Your task to perform on an android device: change timer sound Image 0: 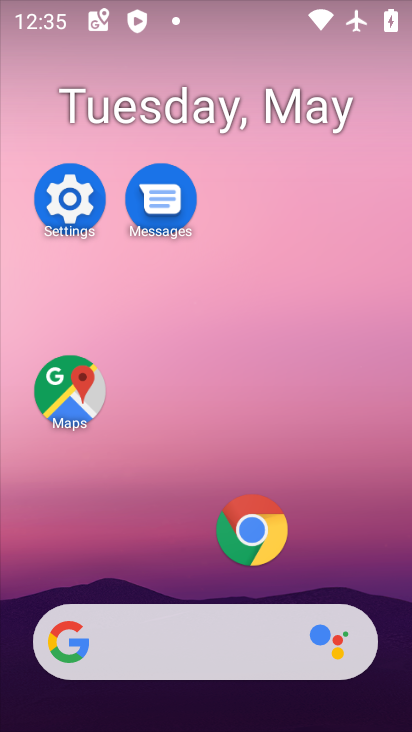
Step 0: drag from (134, 568) to (283, 153)
Your task to perform on an android device: change timer sound Image 1: 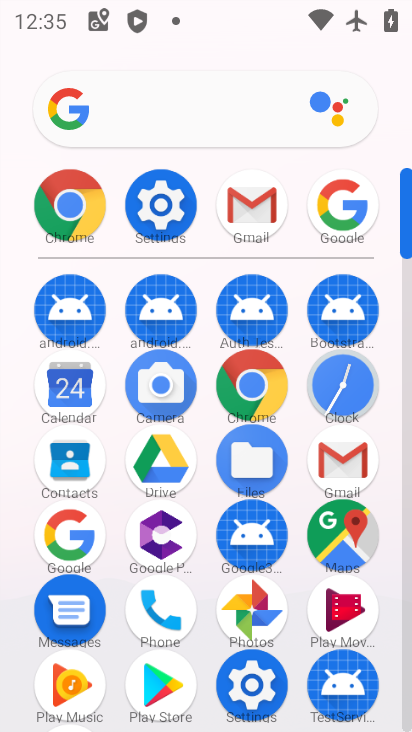
Step 1: click (349, 394)
Your task to perform on an android device: change timer sound Image 2: 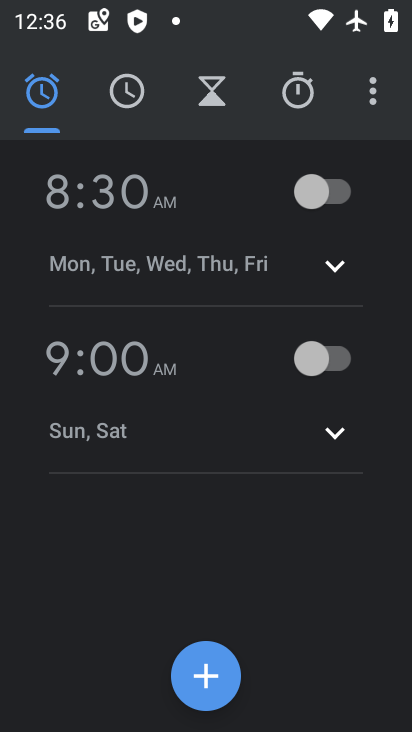
Step 2: click (365, 107)
Your task to perform on an android device: change timer sound Image 3: 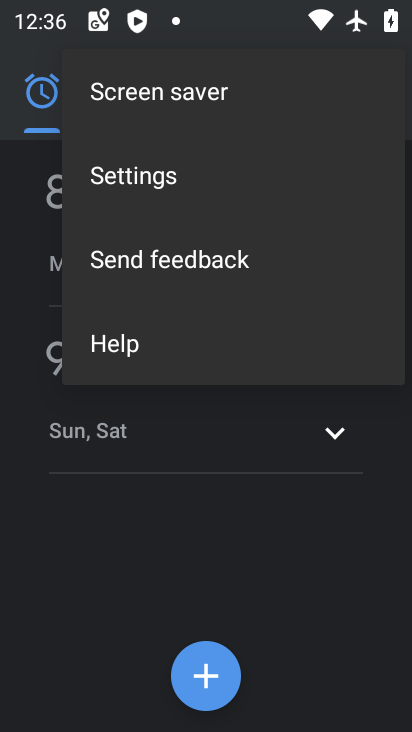
Step 3: click (180, 189)
Your task to perform on an android device: change timer sound Image 4: 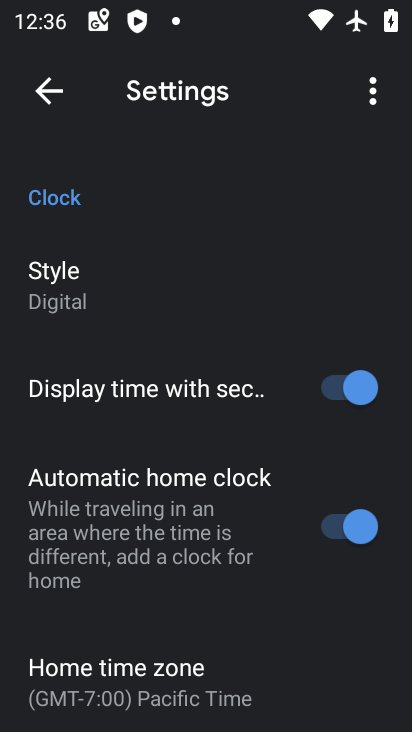
Step 4: drag from (150, 623) to (212, 328)
Your task to perform on an android device: change timer sound Image 5: 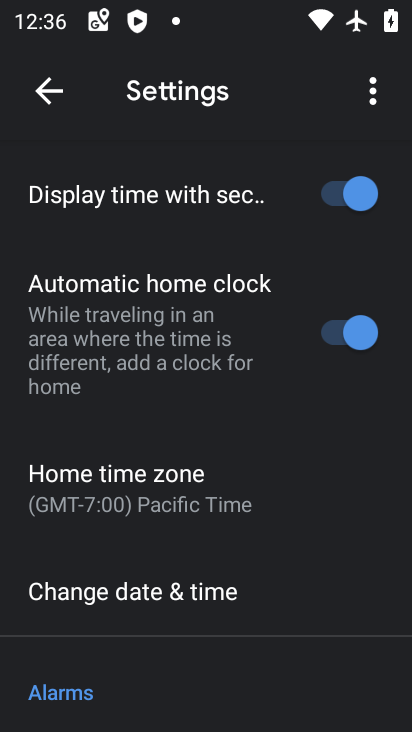
Step 5: click (128, 695)
Your task to perform on an android device: change timer sound Image 6: 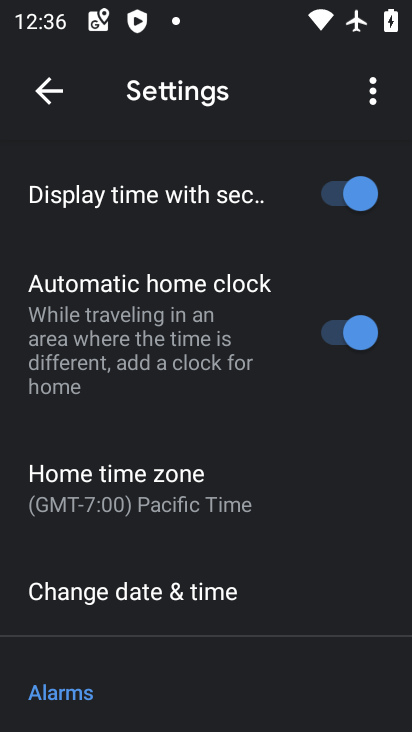
Step 6: drag from (117, 473) to (129, 60)
Your task to perform on an android device: change timer sound Image 7: 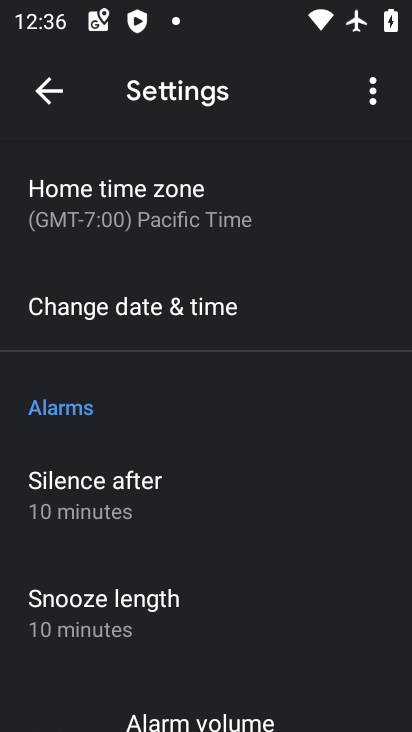
Step 7: drag from (171, 604) to (196, 112)
Your task to perform on an android device: change timer sound Image 8: 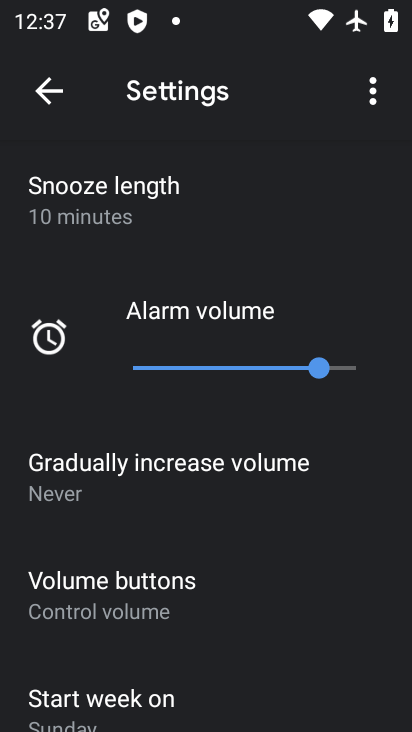
Step 8: drag from (163, 610) to (206, 230)
Your task to perform on an android device: change timer sound Image 9: 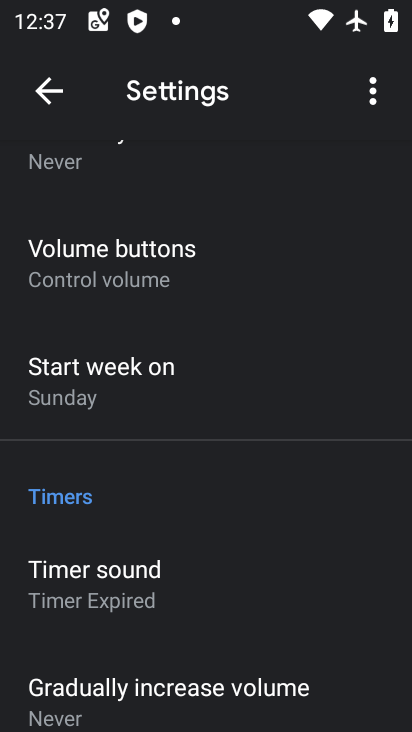
Step 9: click (145, 591)
Your task to perform on an android device: change timer sound Image 10: 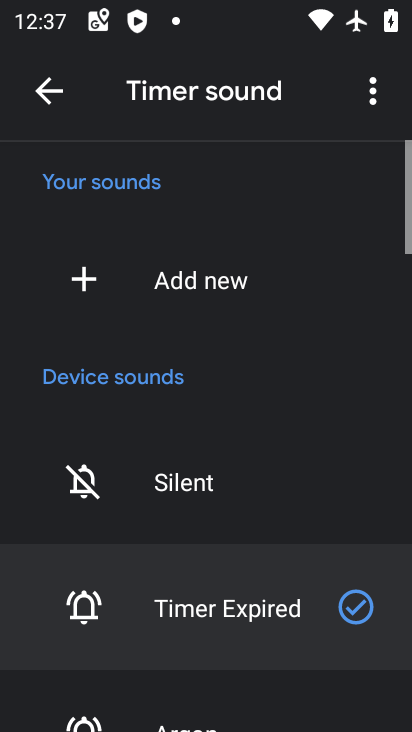
Step 10: click (146, 474)
Your task to perform on an android device: change timer sound Image 11: 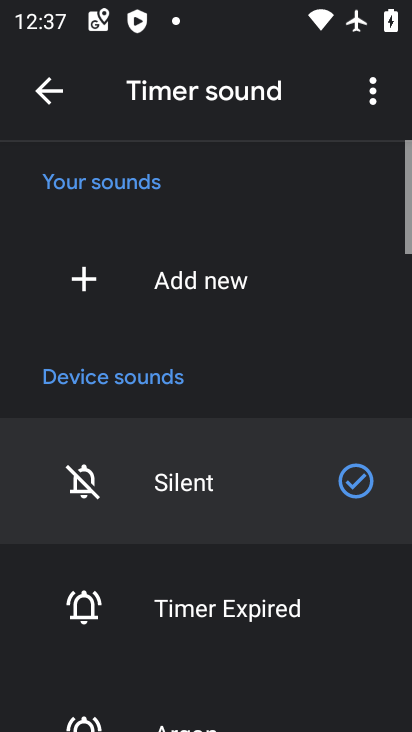
Step 11: task complete